Your task to perform on an android device: open the mobile data screen to see how much data has been used Image 0: 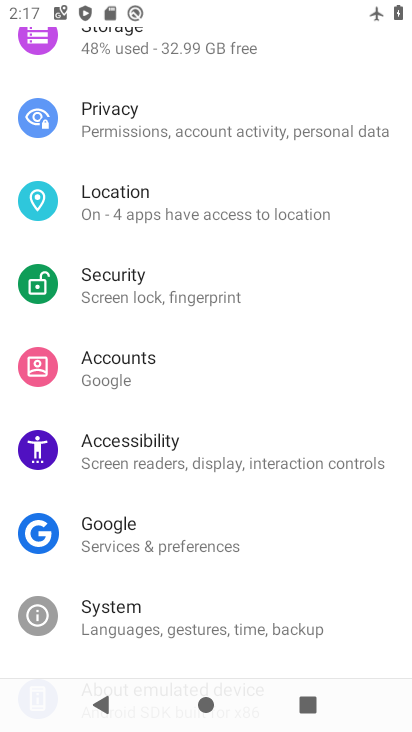
Step 0: press home button
Your task to perform on an android device: open the mobile data screen to see how much data has been used Image 1: 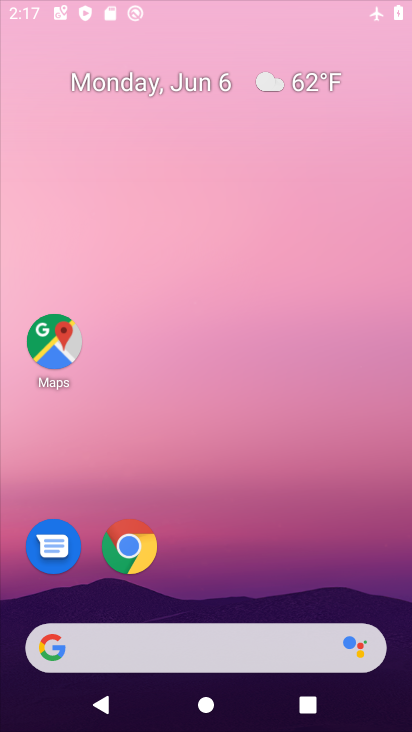
Step 1: press home button
Your task to perform on an android device: open the mobile data screen to see how much data has been used Image 2: 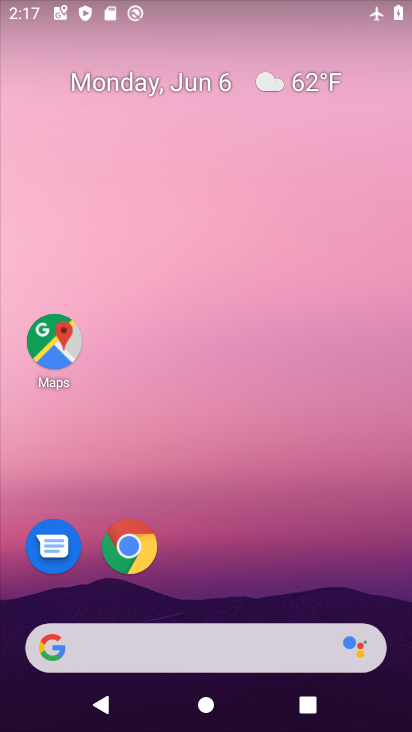
Step 2: press home button
Your task to perform on an android device: open the mobile data screen to see how much data has been used Image 3: 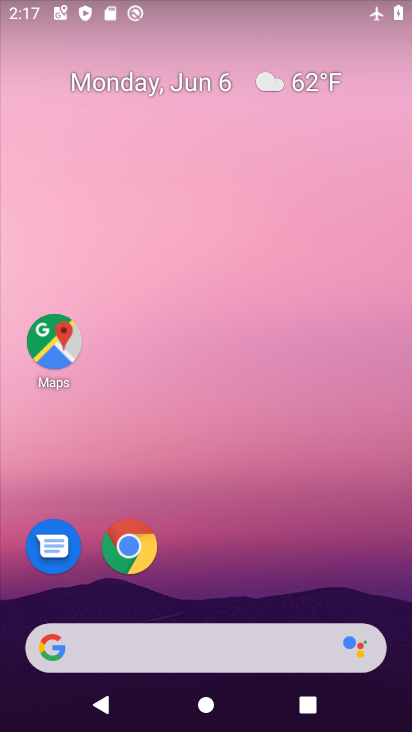
Step 3: drag from (247, 492) to (202, 126)
Your task to perform on an android device: open the mobile data screen to see how much data has been used Image 4: 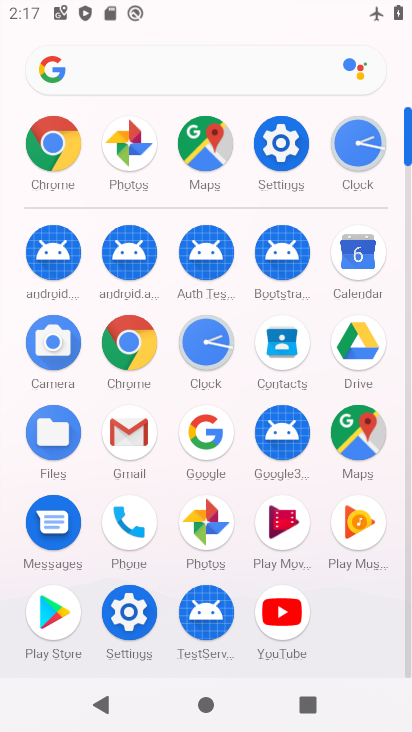
Step 4: click (297, 155)
Your task to perform on an android device: open the mobile data screen to see how much data has been used Image 5: 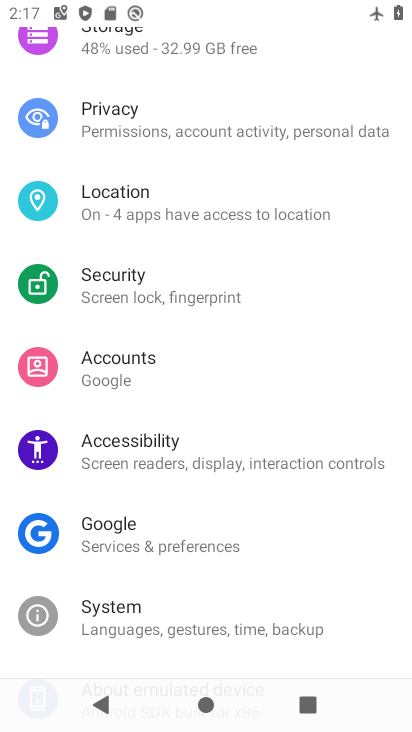
Step 5: drag from (272, 97) to (296, 564)
Your task to perform on an android device: open the mobile data screen to see how much data has been used Image 6: 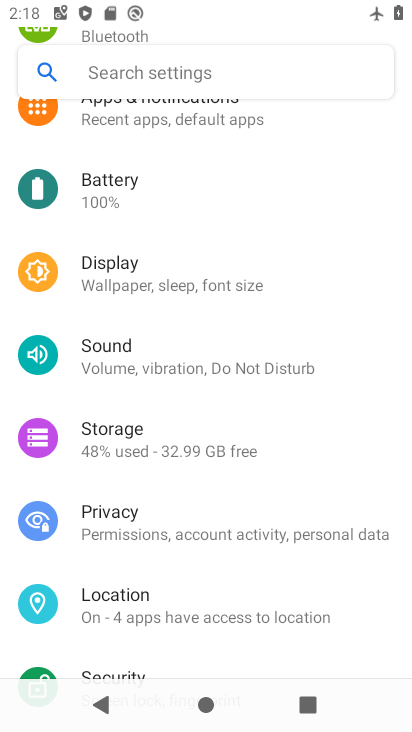
Step 6: drag from (206, 165) to (267, 658)
Your task to perform on an android device: open the mobile data screen to see how much data has been used Image 7: 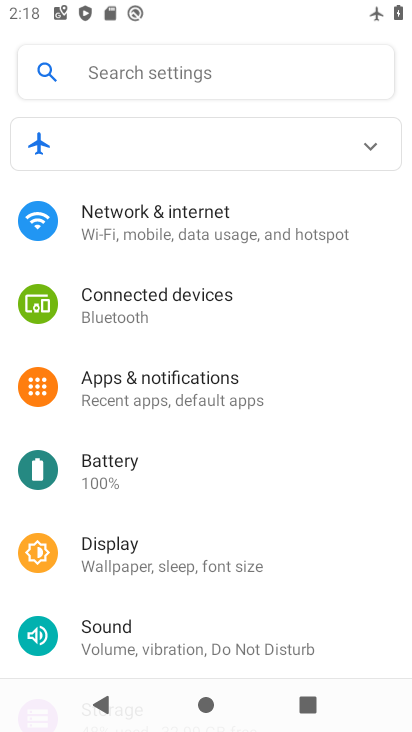
Step 7: click (218, 234)
Your task to perform on an android device: open the mobile data screen to see how much data has been used Image 8: 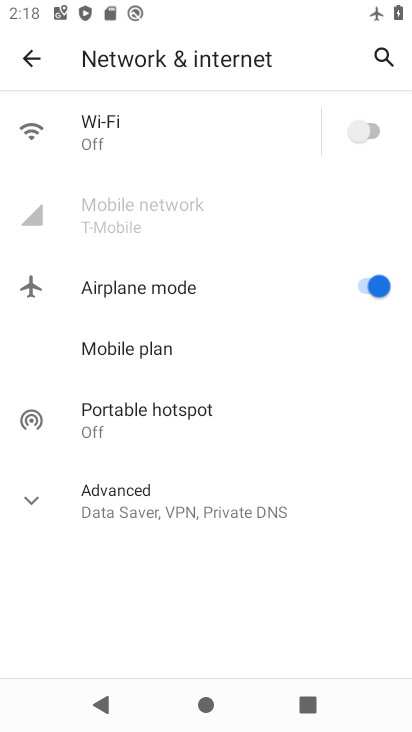
Step 8: click (354, 292)
Your task to perform on an android device: open the mobile data screen to see how much data has been used Image 9: 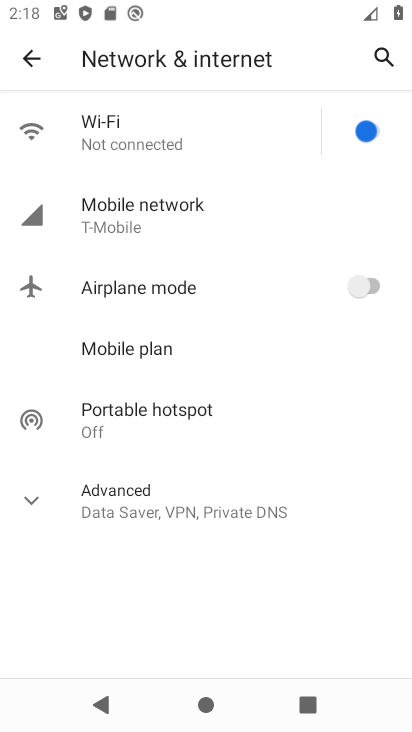
Step 9: click (161, 212)
Your task to perform on an android device: open the mobile data screen to see how much data has been used Image 10: 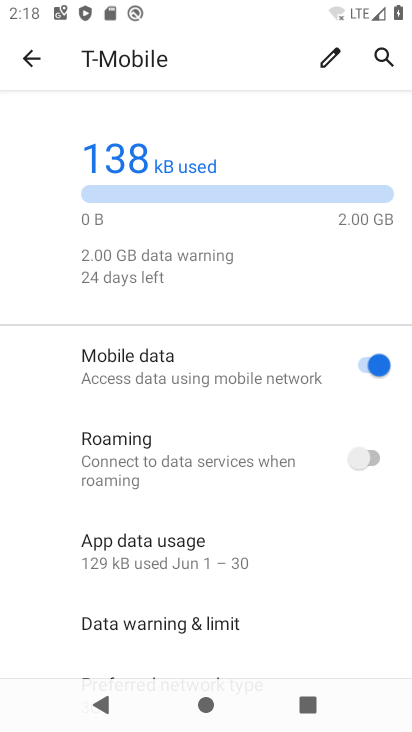
Step 10: task complete